Your task to perform on an android device: Check the news Image 0: 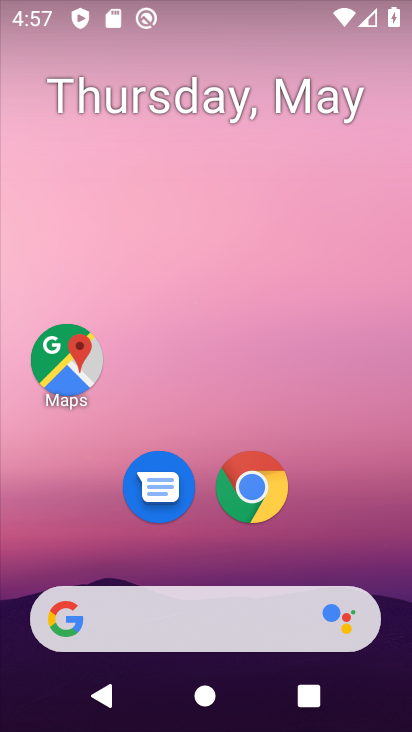
Step 0: click (192, 602)
Your task to perform on an android device: Check the news Image 1: 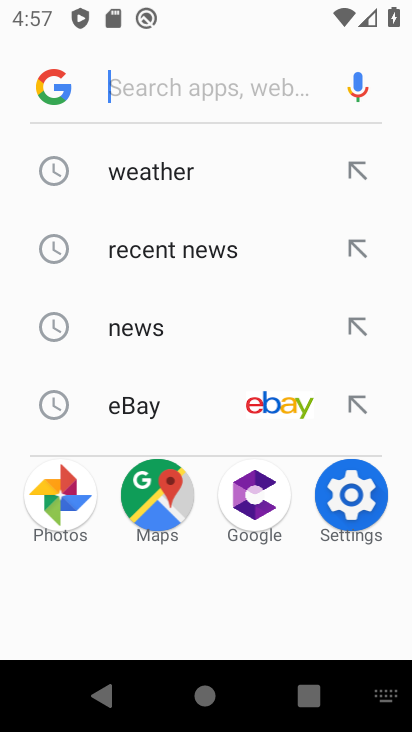
Step 1: click (54, 322)
Your task to perform on an android device: Check the news Image 2: 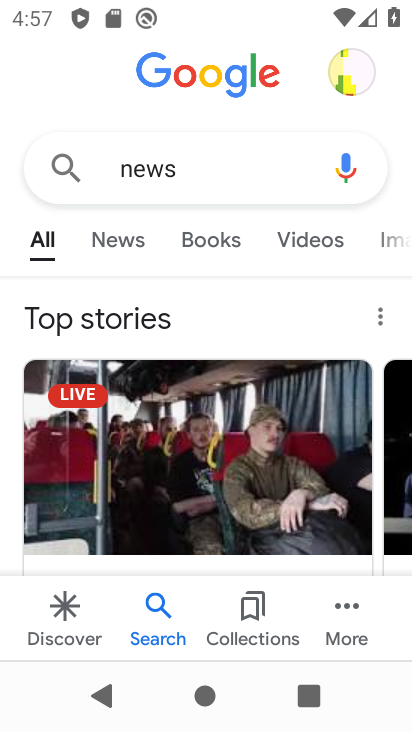
Step 2: click (126, 238)
Your task to perform on an android device: Check the news Image 3: 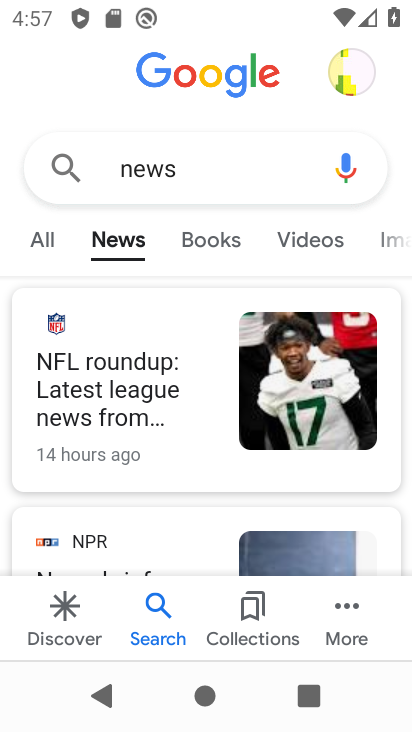
Step 3: task complete